Your task to perform on an android device: manage bookmarks in the chrome app Image 0: 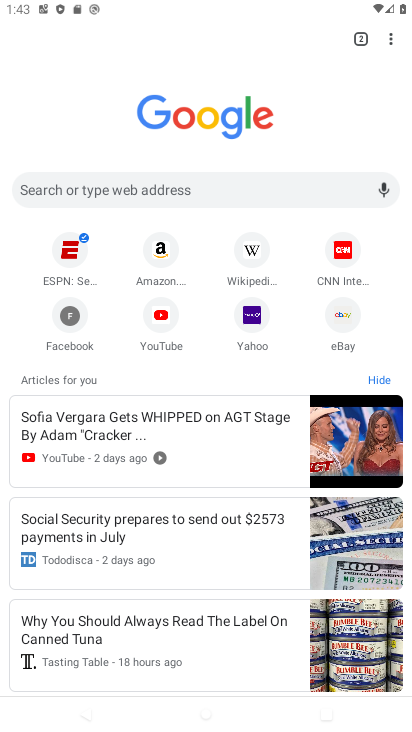
Step 0: drag from (386, 40) to (272, 135)
Your task to perform on an android device: manage bookmarks in the chrome app Image 1: 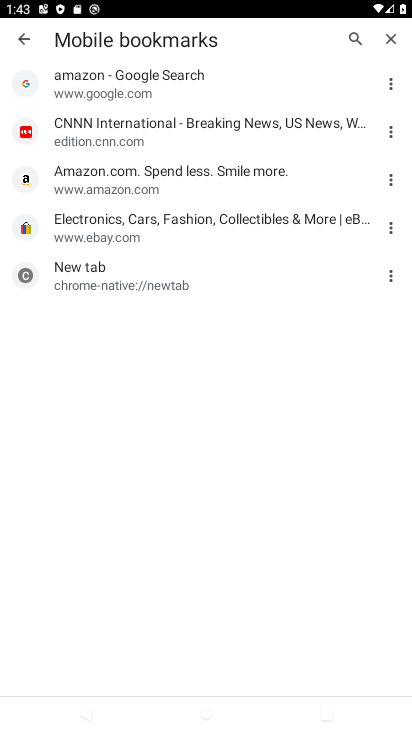
Step 1: click (392, 136)
Your task to perform on an android device: manage bookmarks in the chrome app Image 2: 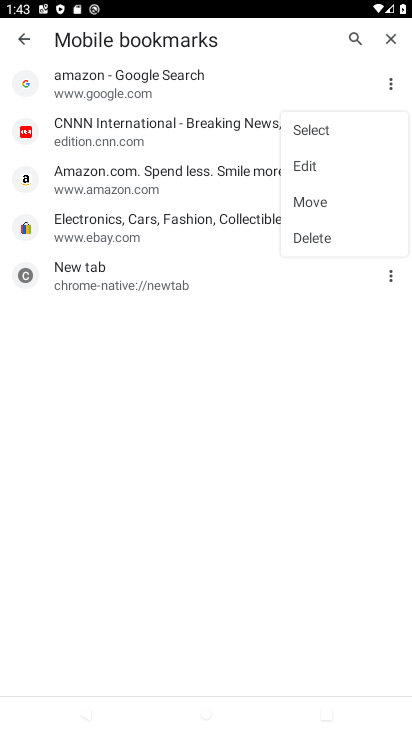
Step 2: click (308, 239)
Your task to perform on an android device: manage bookmarks in the chrome app Image 3: 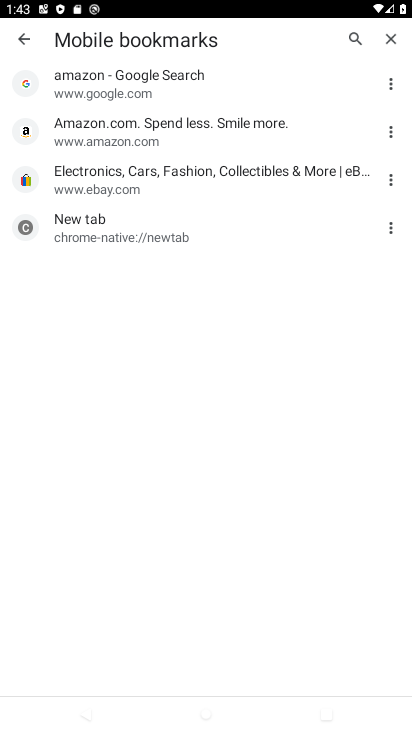
Step 3: task complete